Your task to perform on an android device: Turn off the flashlight Image 0: 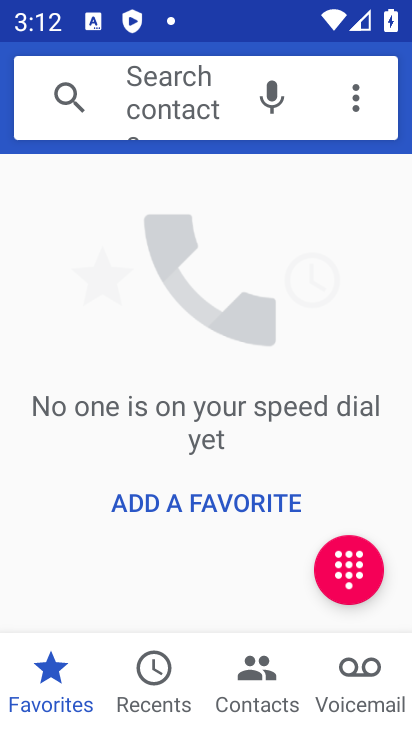
Step 0: press home button
Your task to perform on an android device: Turn off the flashlight Image 1: 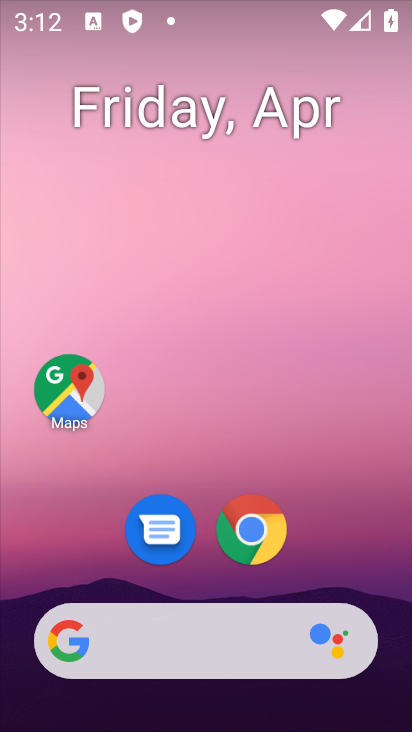
Step 1: task complete